Your task to perform on an android device: change the clock display to show seconds Image 0: 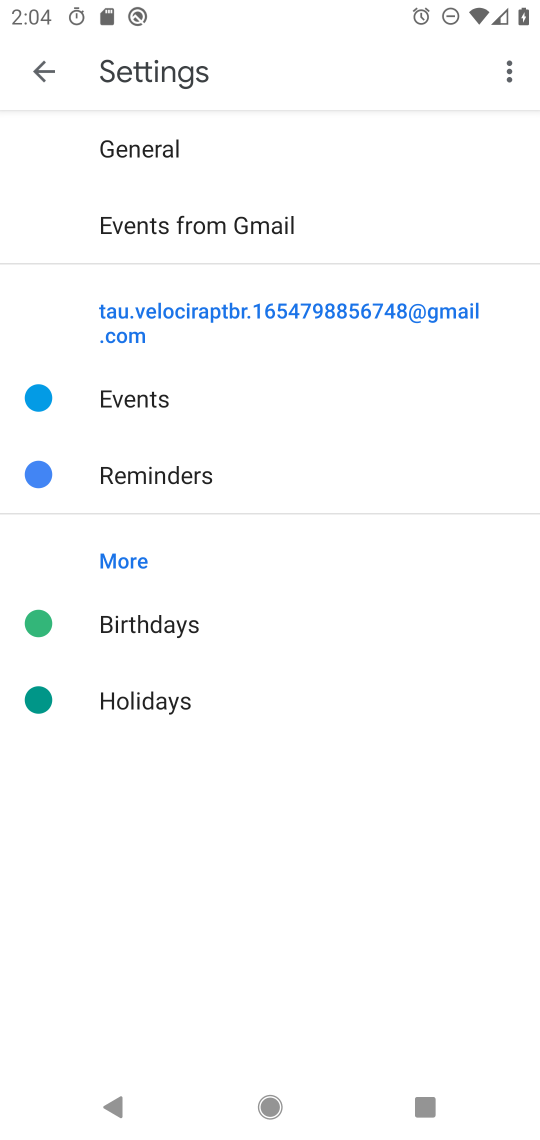
Step 0: press home button
Your task to perform on an android device: change the clock display to show seconds Image 1: 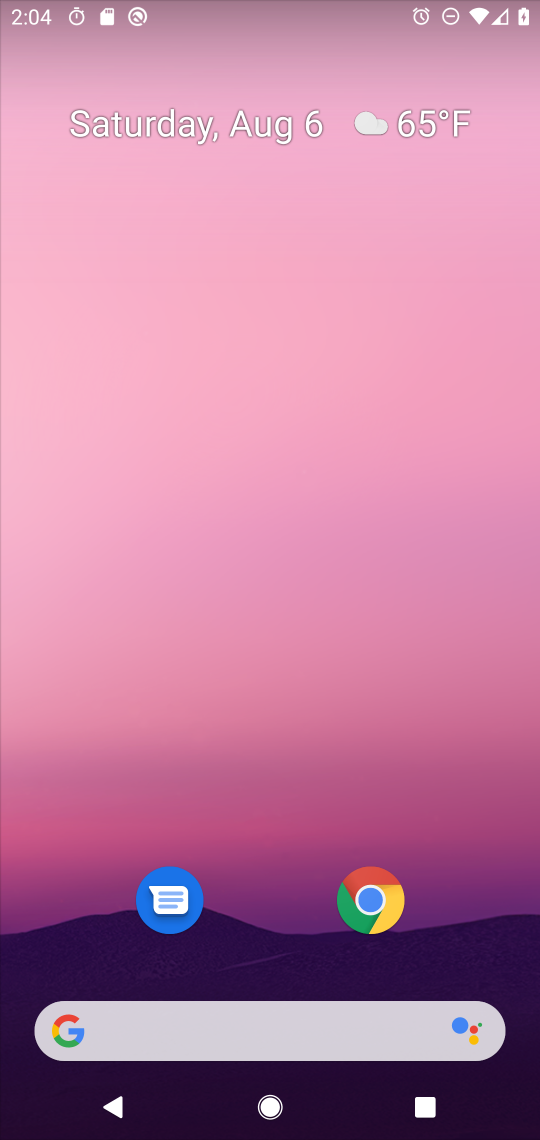
Step 1: drag from (313, 980) to (313, 176)
Your task to perform on an android device: change the clock display to show seconds Image 2: 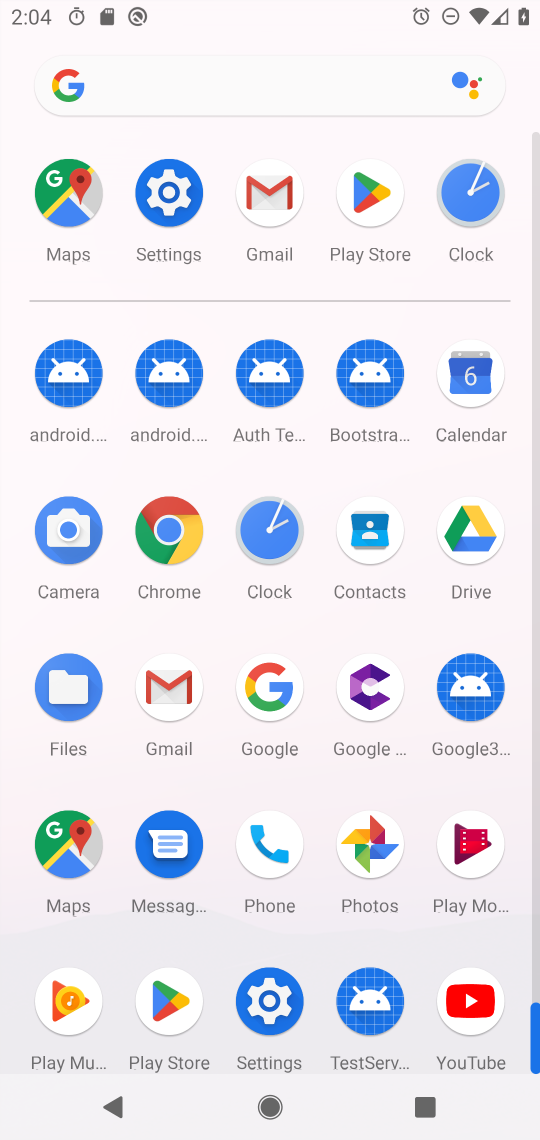
Step 2: click (270, 535)
Your task to perform on an android device: change the clock display to show seconds Image 3: 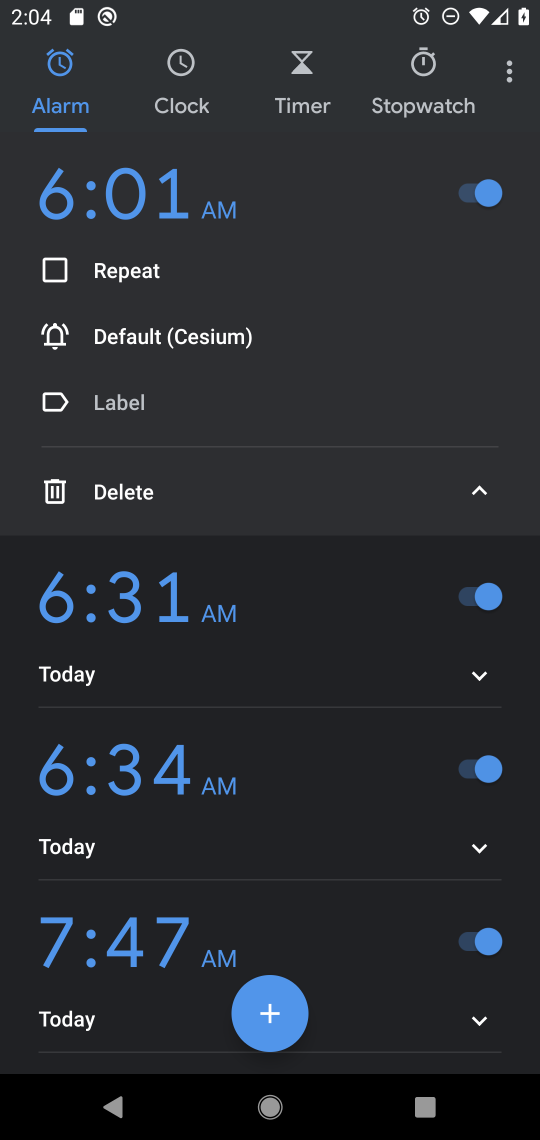
Step 3: click (511, 81)
Your task to perform on an android device: change the clock display to show seconds Image 4: 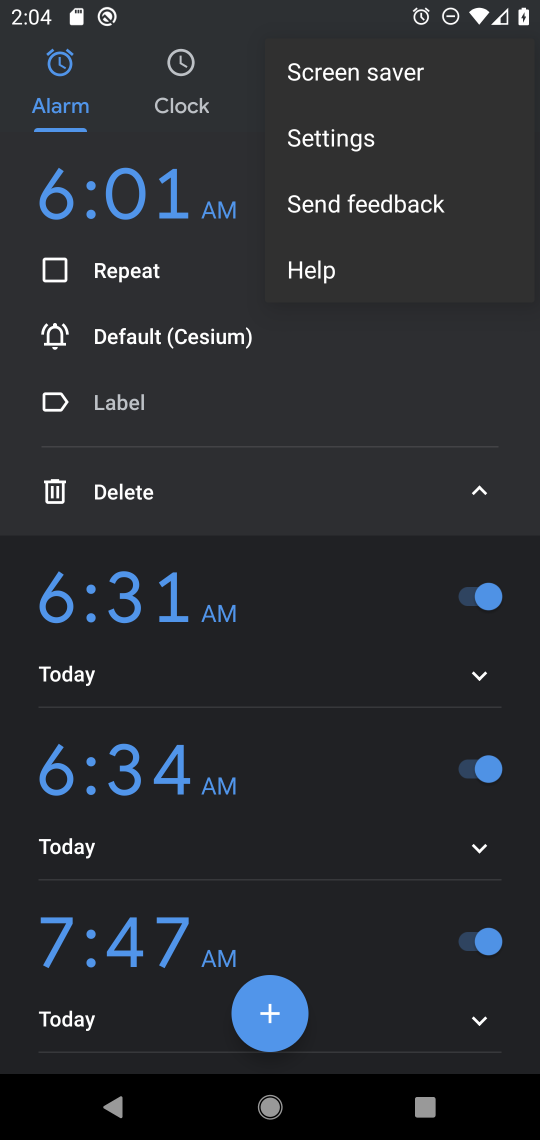
Step 4: click (326, 142)
Your task to perform on an android device: change the clock display to show seconds Image 5: 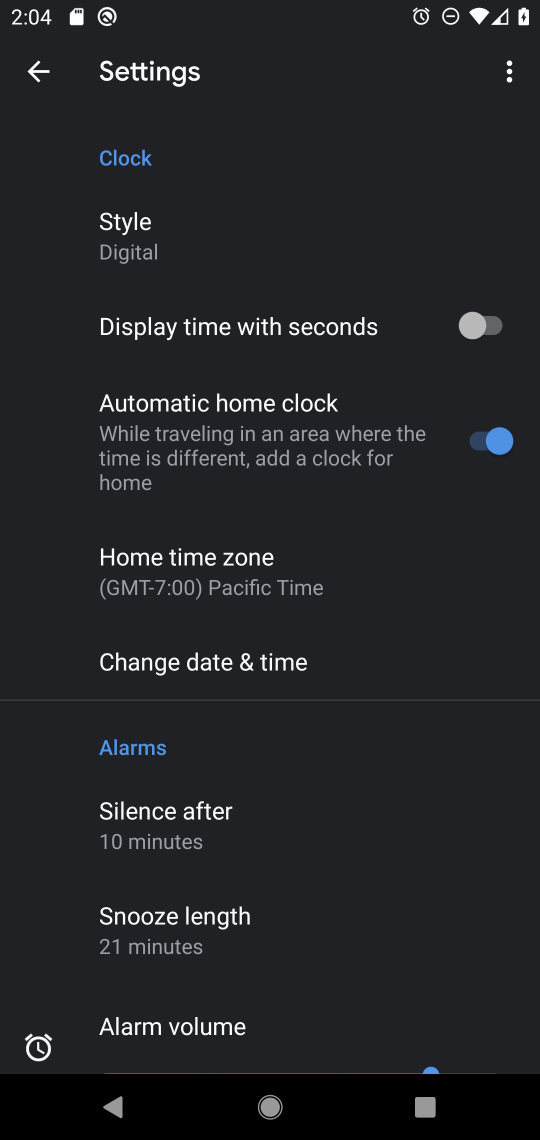
Step 5: click (499, 326)
Your task to perform on an android device: change the clock display to show seconds Image 6: 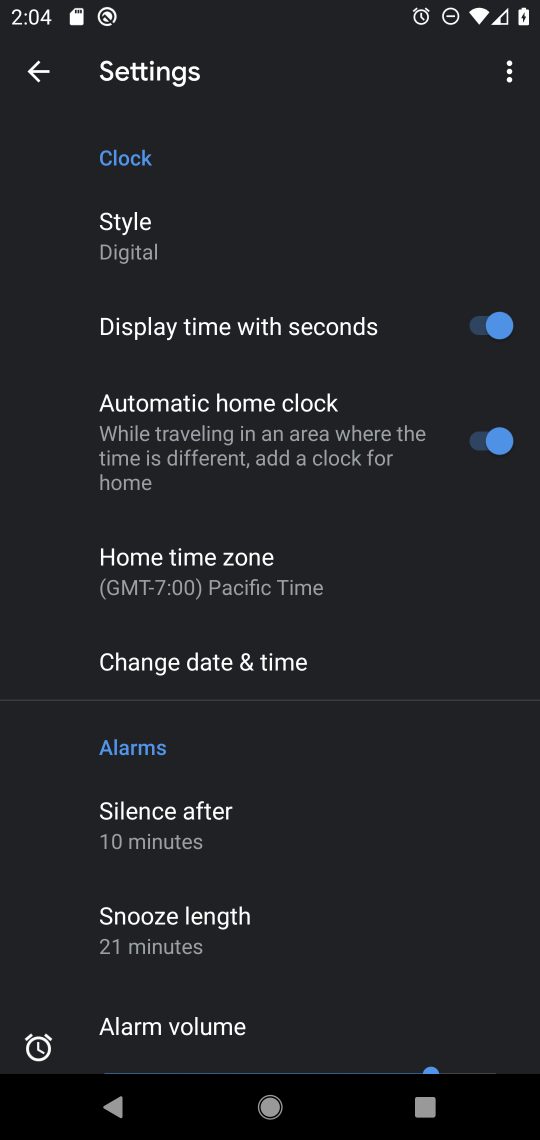
Step 6: task complete